Your task to perform on an android device: Open Reddit.com Image 0: 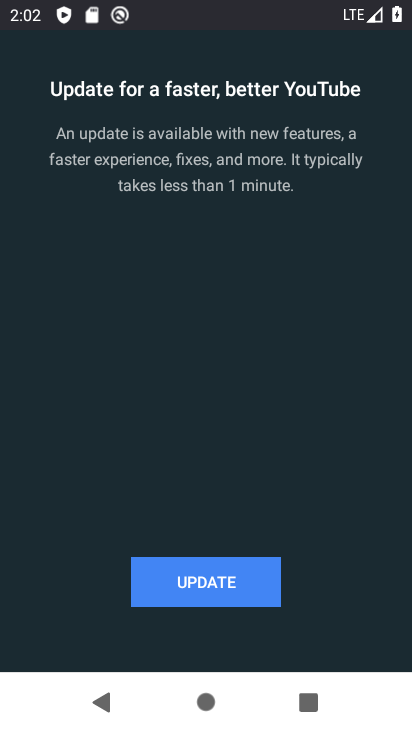
Step 0: press home button
Your task to perform on an android device: Open Reddit.com Image 1: 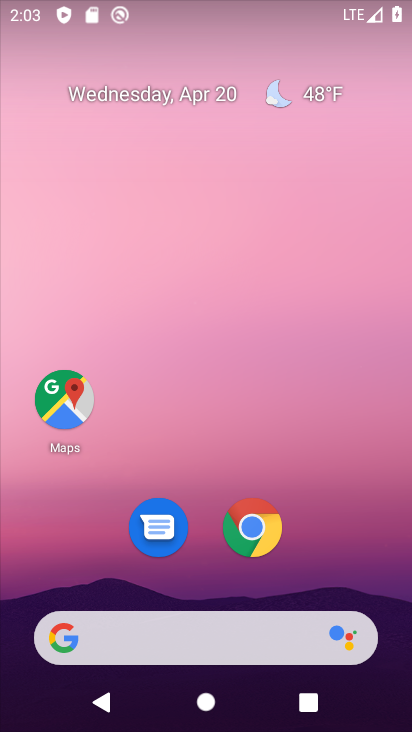
Step 1: click (251, 532)
Your task to perform on an android device: Open Reddit.com Image 2: 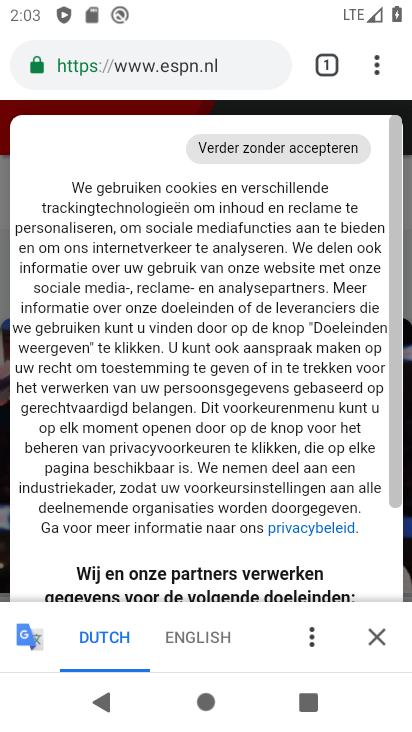
Step 2: click (233, 71)
Your task to perform on an android device: Open Reddit.com Image 3: 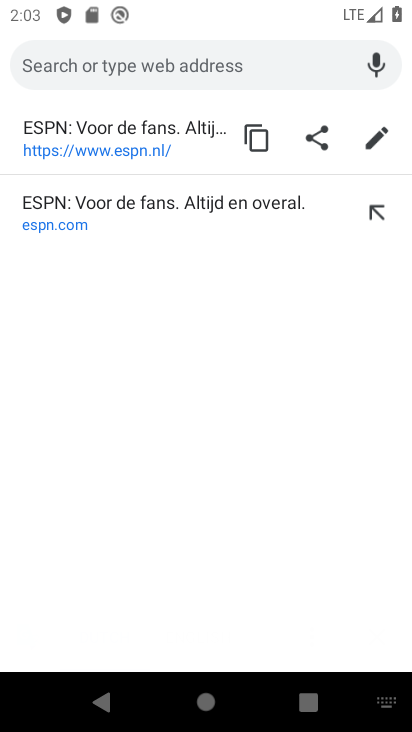
Step 3: type "reddit.com"
Your task to perform on an android device: Open Reddit.com Image 4: 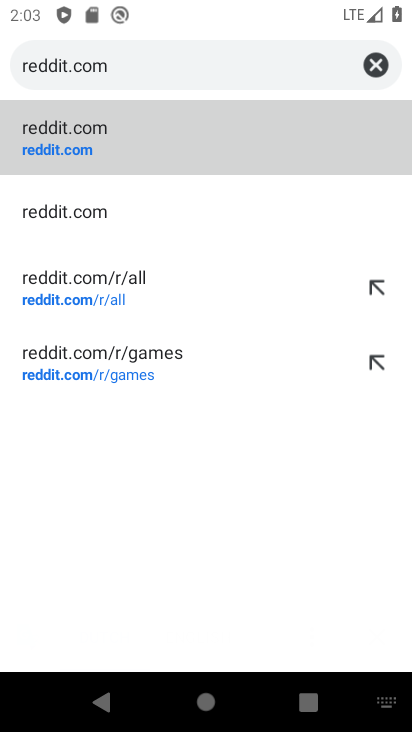
Step 4: click (215, 154)
Your task to perform on an android device: Open Reddit.com Image 5: 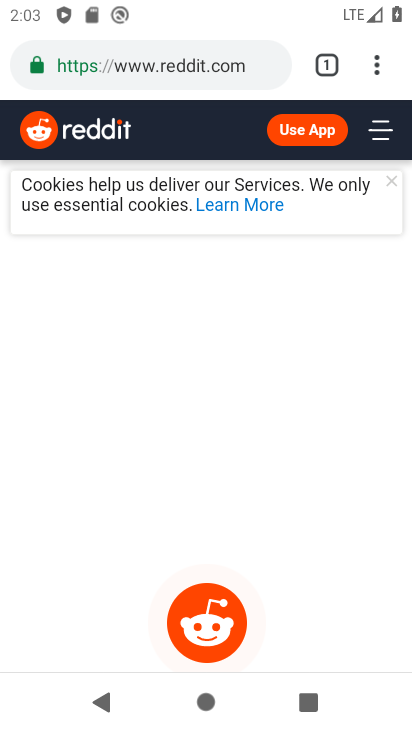
Step 5: task complete